Your task to perform on an android device: change text size in settings app Image 0: 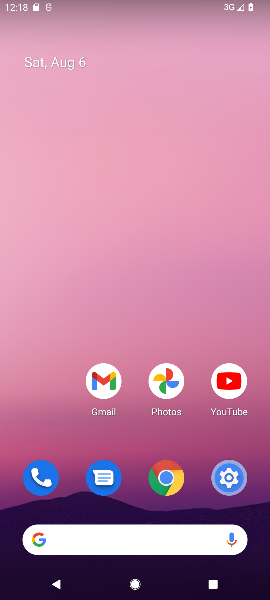
Step 0: drag from (115, 525) to (171, 230)
Your task to perform on an android device: change text size in settings app Image 1: 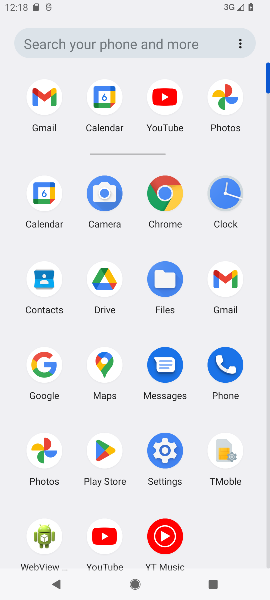
Step 1: click (165, 456)
Your task to perform on an android device: change text size in settings app Image 2: 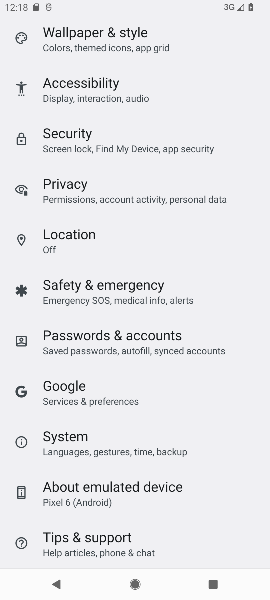
Step 2: click (78, 89)
Your task to perform on an android device: change text size in settings app Image 3: 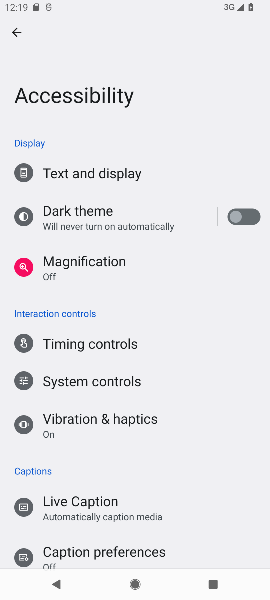
Step 3: click (68, 178)
Your task to perform on an android device: change text size in settings app Image 4: 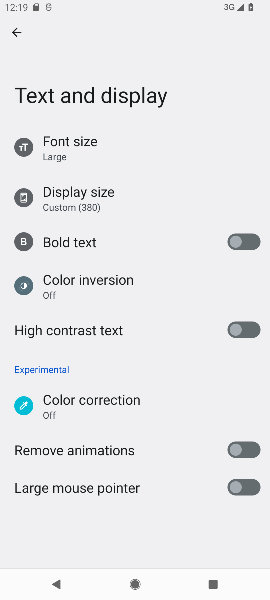
Step 4: click (77, 148)
Your task to perform on an android device: change text size in settings app Image 5: 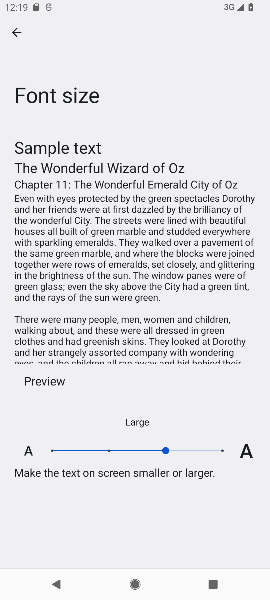
Step 5: click (131, 450)
Your task to perform on an android device: change text size in settings app Image 6: 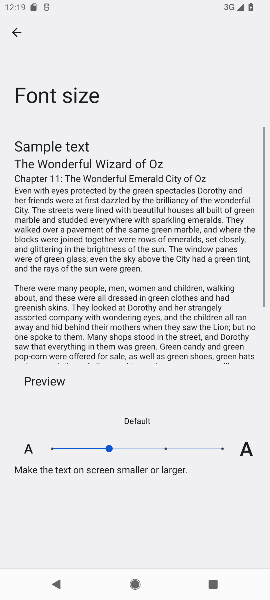
Step 6: task complete